Your task to perform on an android device: set an alarm Image 0: 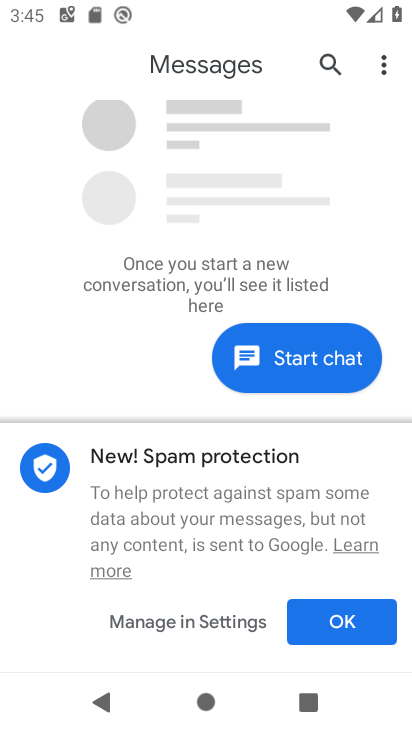
Step 0: press home button
Your task to perform on an android device: set an alarm Image 1: 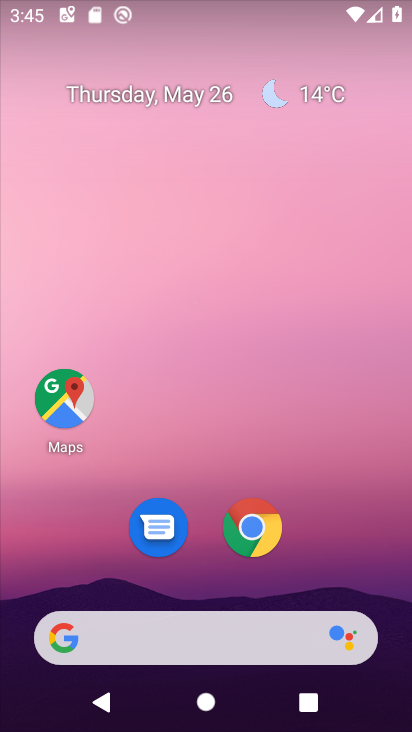
Step 1: drag from (388, 591) to (229, 117)
Your task to perform on an android device: set an alarm Image 2: 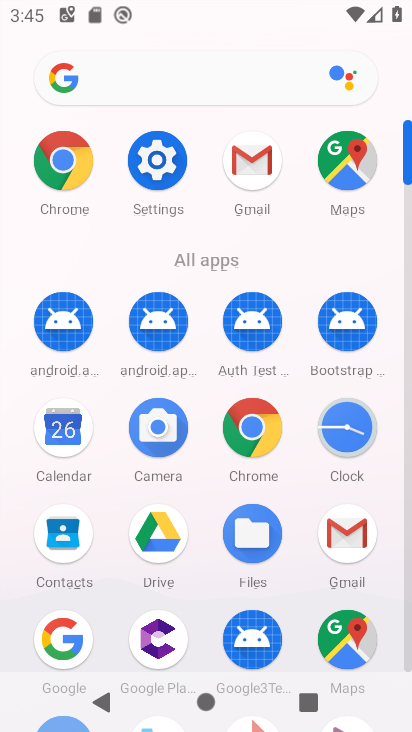
Step 2: click (345, 440)
Your task to perform on an android device: set an alarm Image 3: 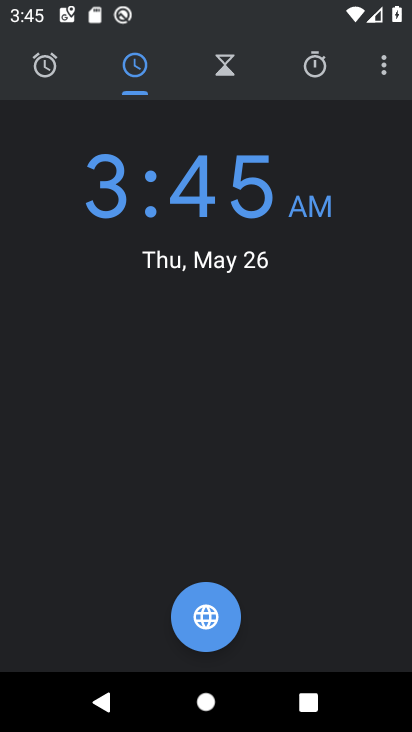
Step 3: click (57, 76)
Your task to perform on an android device: set an alarm Image 4: 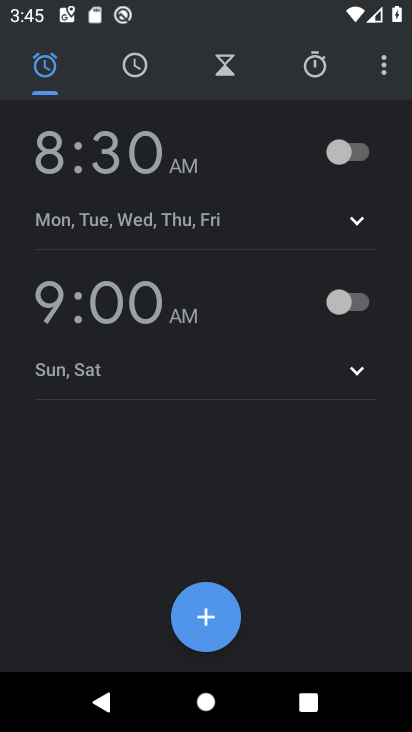
Step 4: click (219, 626)
Your task to perform on an android device: set an alarm Image 5: 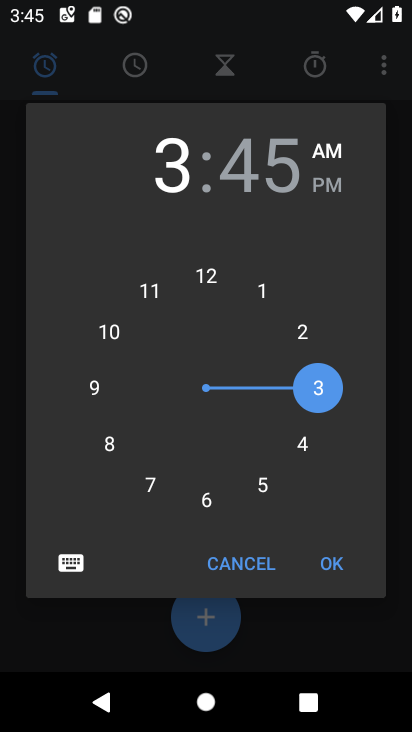
Step 5: click (321, 576)
Your task to perform on an android device: set an alarm Image 6: 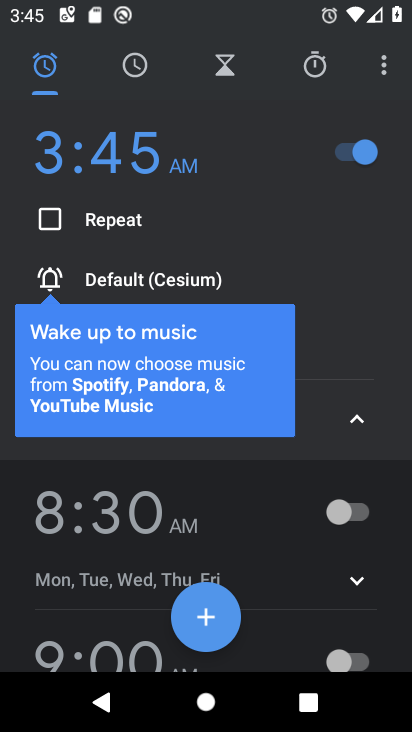
Step 6: task complete